Your task to perform on an android device: turn on wifi Image 0: 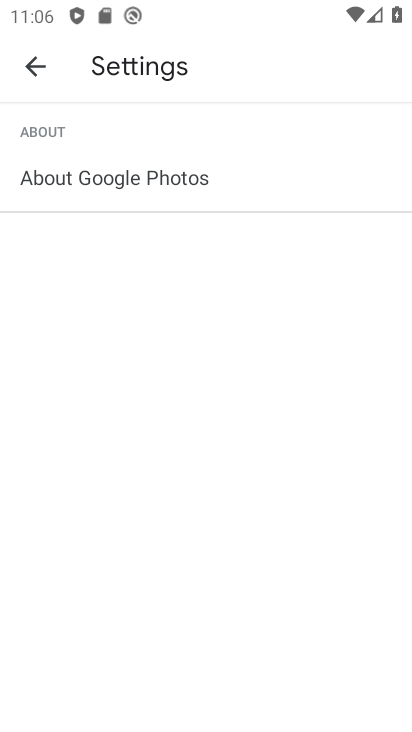
Step 0: press home button
Your task to perform on an android device: turn on wifi Image 1: 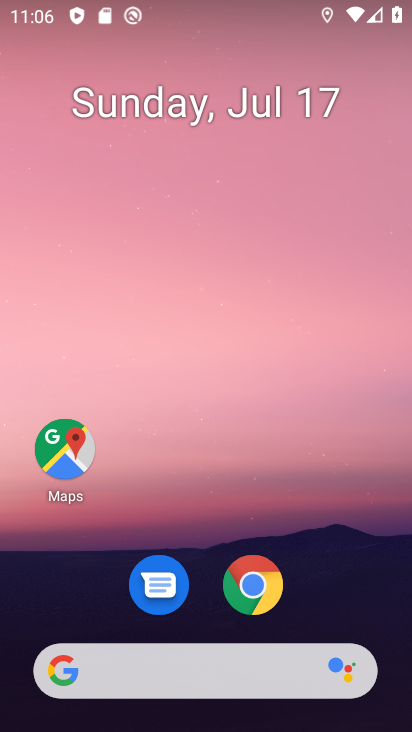
Step 1: drag from (352, 482) to (283, 29)
Your task to perform on an android device: turn on wifi Image 2: 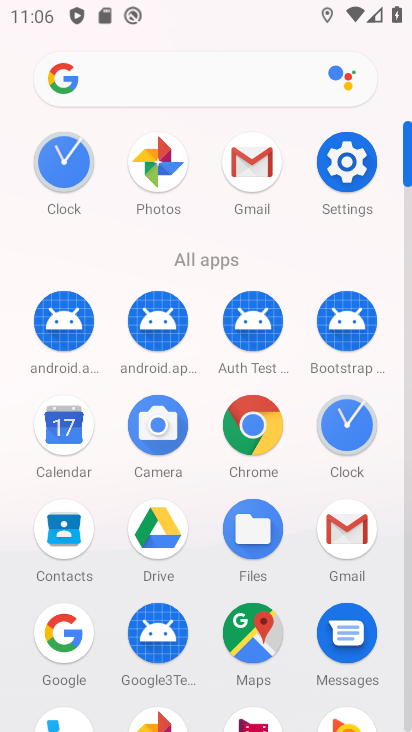
Step 2: click (346, 165)
Your task to perform on an android device: turn on wifi Image 3: 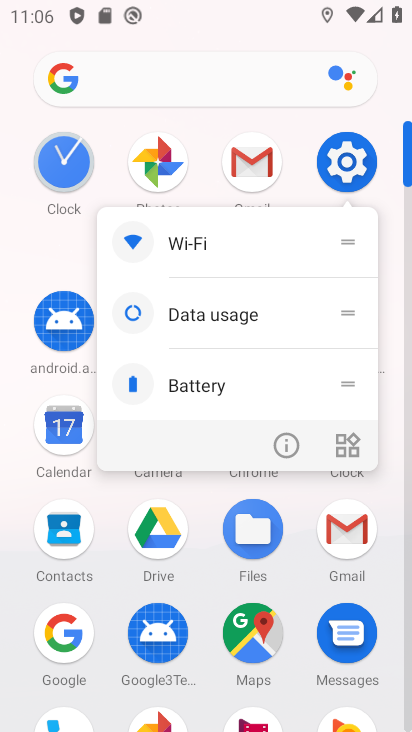
Step 3: click (341, 168)
Your task to perform on an android device: turn on wifi Image 4: 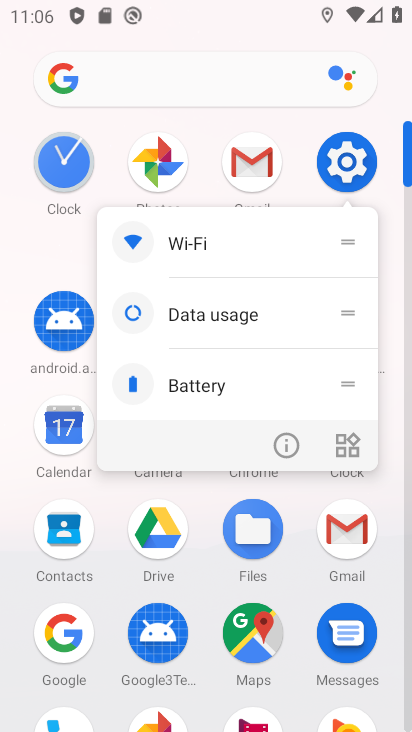
Step 4: click (341, 166)
Your task to perform on an android device: turn on wifi Image 5: 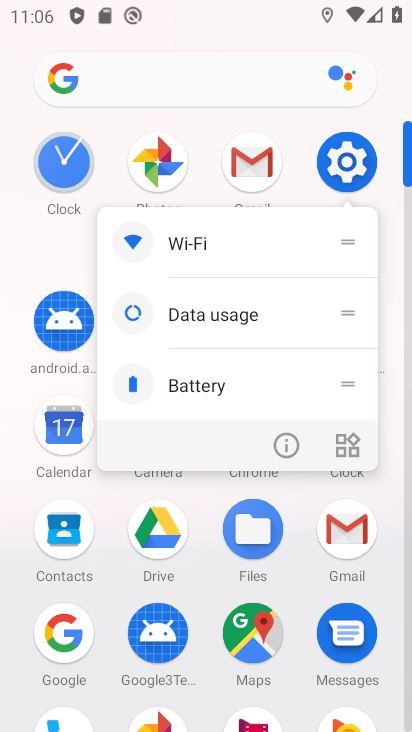
Step 5: click (354, 146)
Your task to perform on an android device: turn on wifi Image 6: 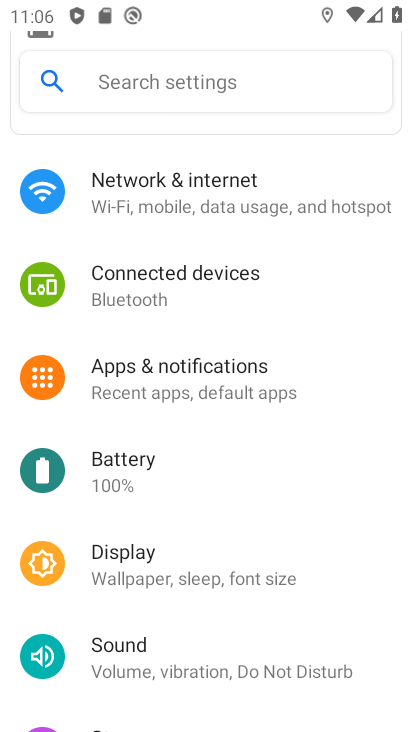
Step 6: click (274, 210)
Your task to perform on an android device: turn on wifi Image 7: 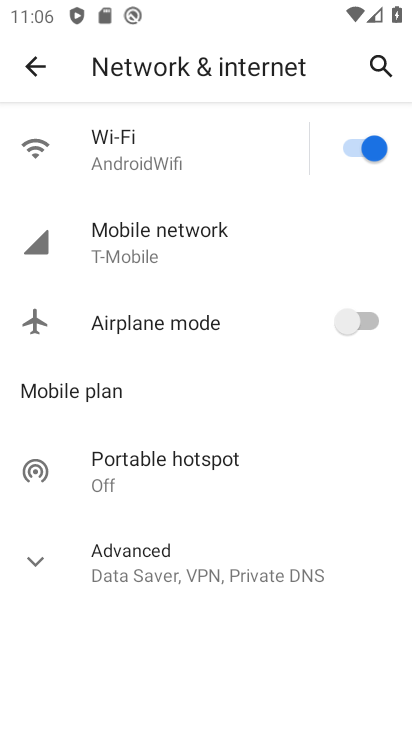
Step 7: task complete